Your task to perform on an android device: Open Google Chrome Image 0: 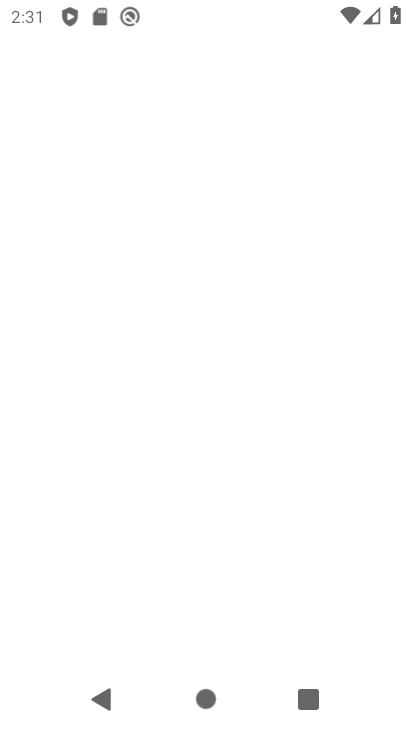
Step 0: press home button
Your task to perform on an android device: Open Google Chrome Image 1: 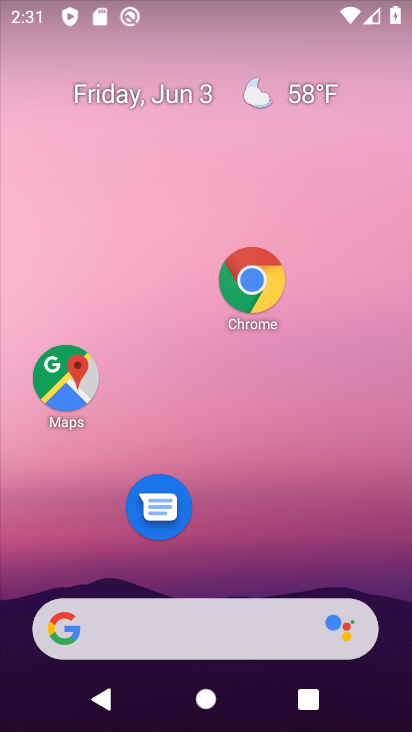
Step 1: click (247, 283)
Your task to perform on an android device: Open Google Chrome Image 2: 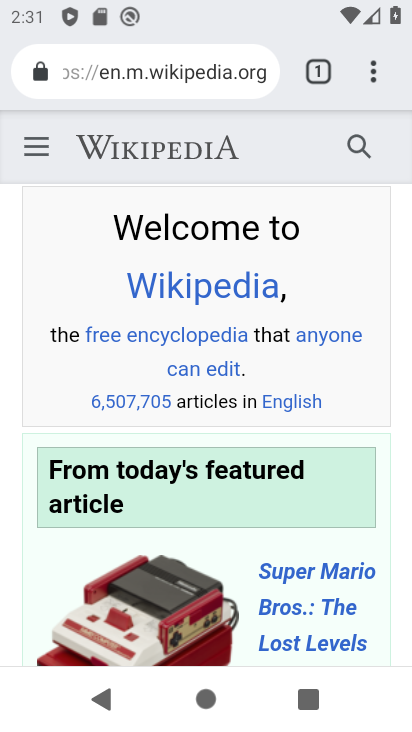
Step 2: task complete